Your task to perform on an android device: Open my contact list Image 0: 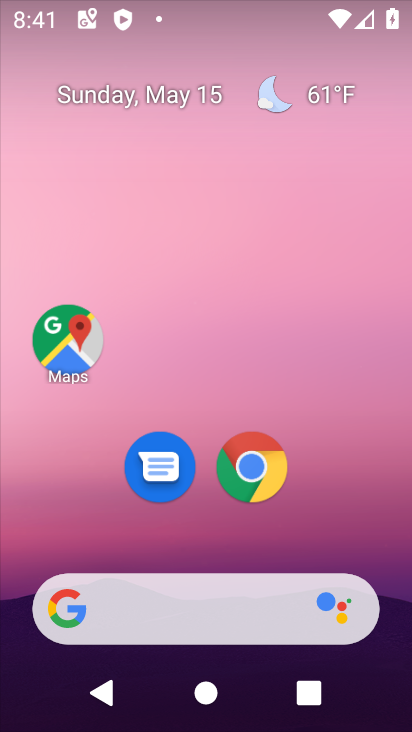
Step 0: drag from (202, 549) to (260, 110)
Your task to perform on an android device: Open my contact list Image 1: 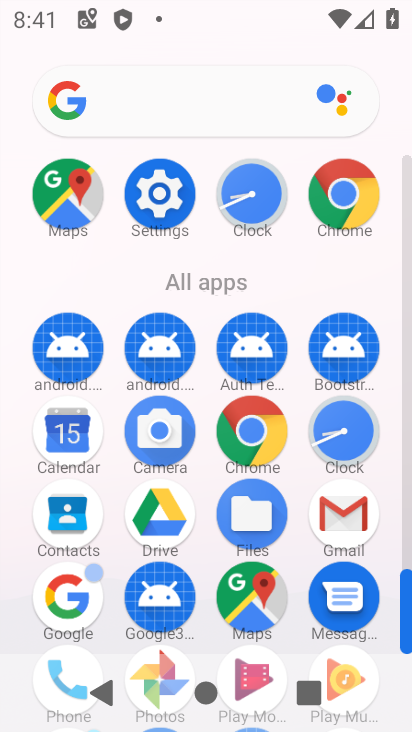
Step 1: click (76, 508)
Your task to perform on an android device: Open my contact list Image 2: 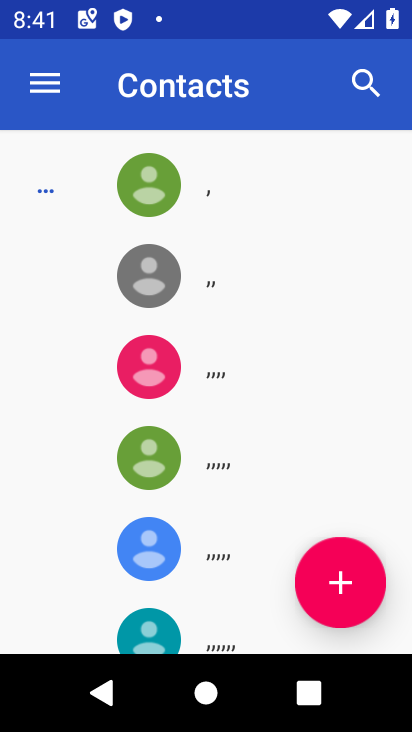
Step 2: task complete